Your task to perform on an android device: stop showing notifications on the lock screen Image 0: 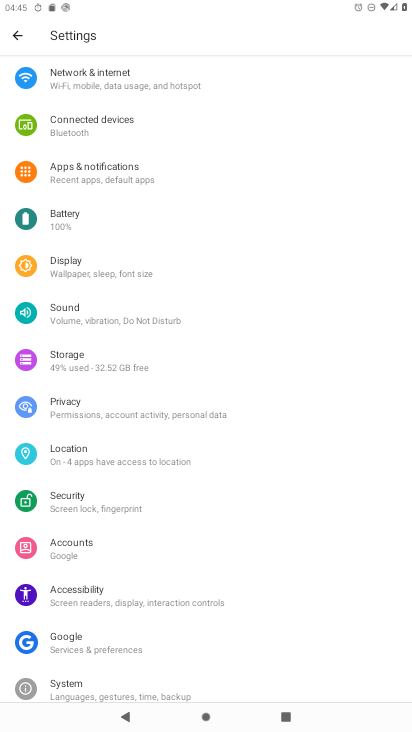
Step 0: press home button
Your task to perform on an android device: stop showing notifications on the lock screen Image 1: 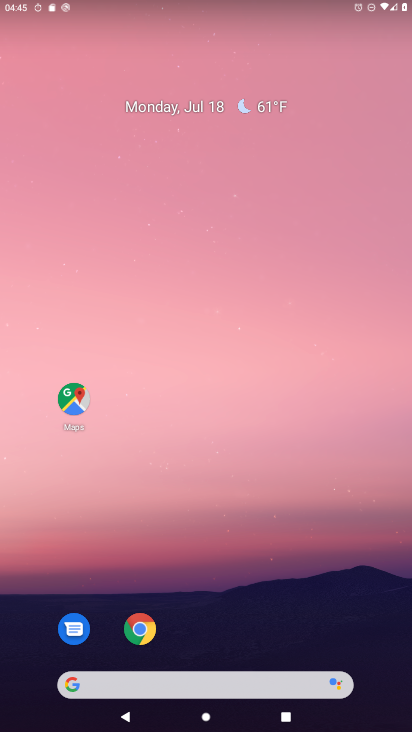
Step 1: drag from (177, 682) to (159, 98)
Your task to perform on an android device: stop showing notifications on the lock screen Image 2: 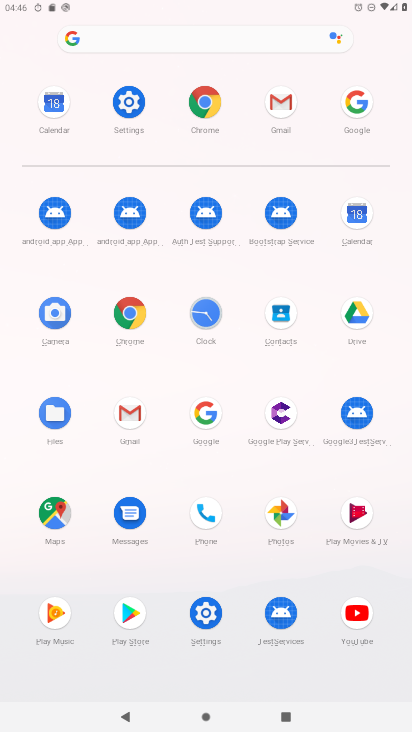
Step 2: click (129, 102)
Your task to perform on an android device: stop showing notifications on the lock screen Image 3: 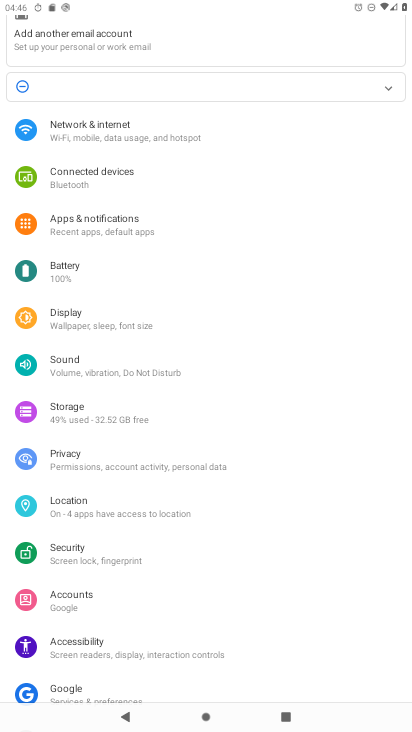
Step 3: click (96, 223)
Your task to perform on an android device: stop showing notifications on the lock screen Image 4: 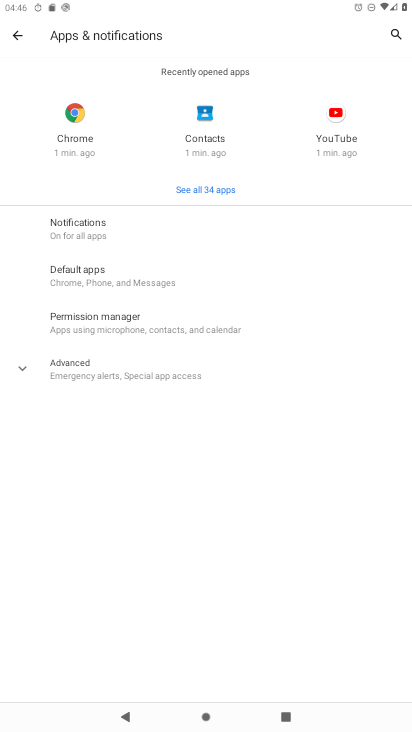
Step 4: click (96, 223)
Your task to perform on an android device: stop showing notifications on the lock screen Image 5: 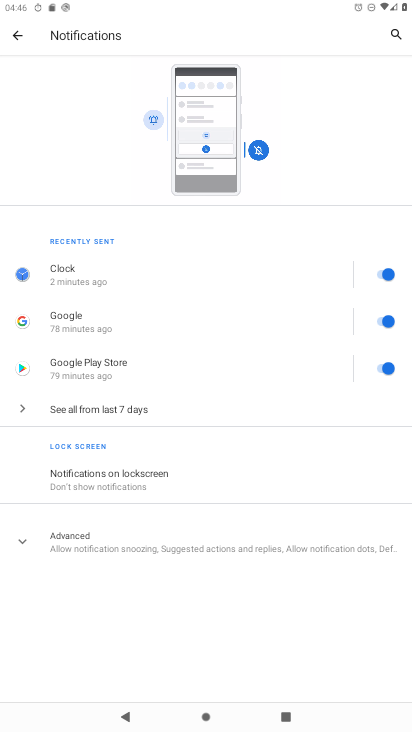
Step 5: click (122, 477)
Your task to perform on an android device: stop showing notifications on the lock screen Image 6: 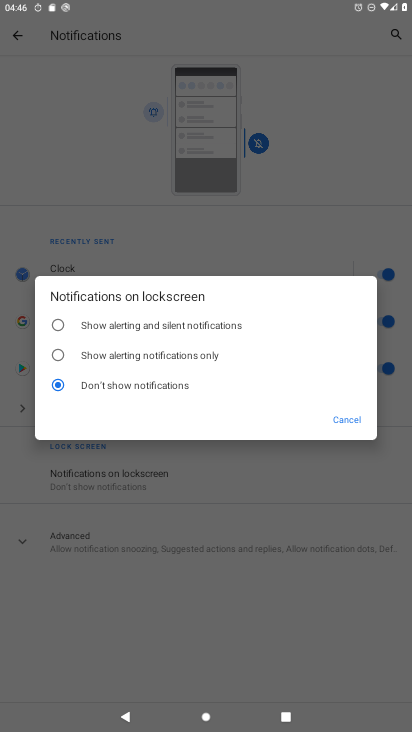
Step 6: click (61, 386)
Your task to perform on an android device: stop showing notifications on the lock screen Image 7: 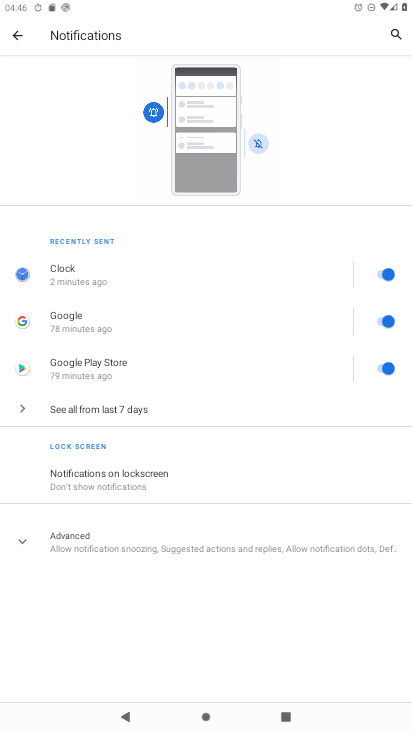
Step 7: task complete